Your task to perform on an android device: change the clock display to analog Image 0: 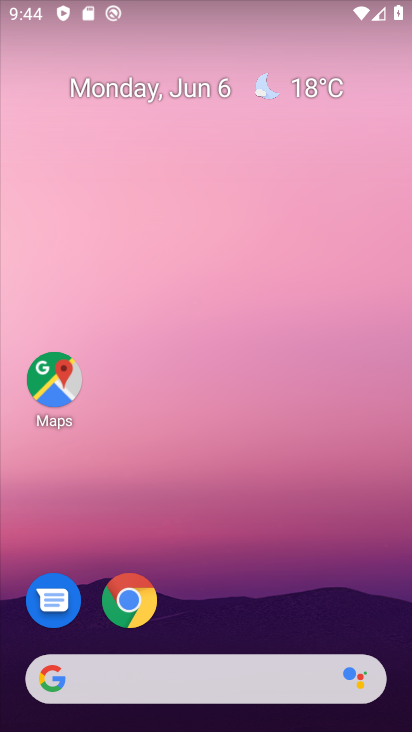
Step 0: drag from (276, 578) to (218, 33)
Your task to perform on an android device: change the clock display to analog Image 1: 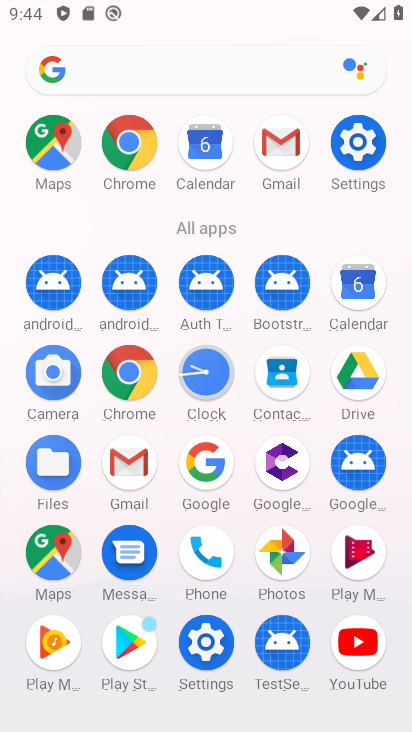
Step 1: click (207, 376)
Your task to perform on an android device: change the clock display to analog Image 2: 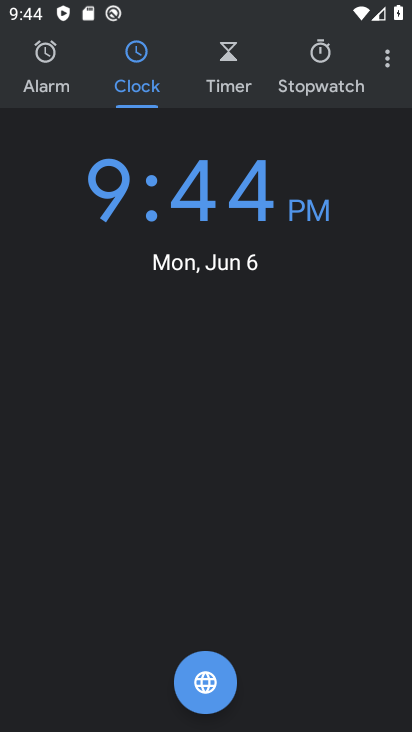
Step 2: drag from (390, 60) to (276, 117)
Your task to perform on an android device: change the clock display to analog Image 3: 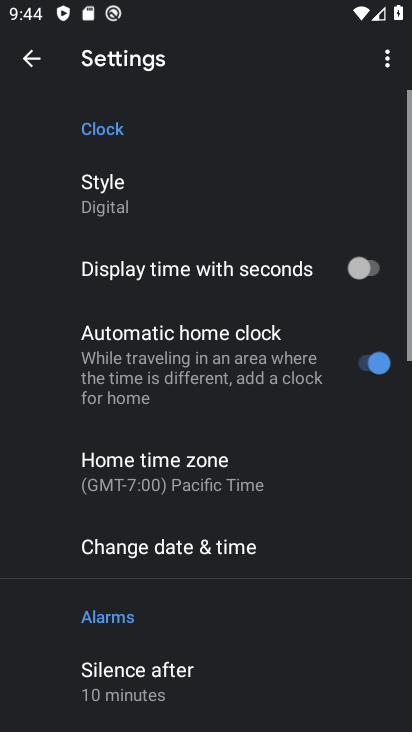
Step 3: click (187, 182)
Your task to perform on an android device: change the clock display to analog Image 4: 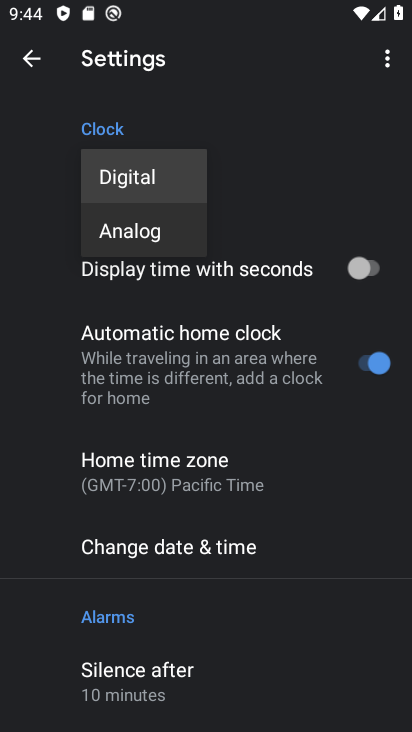
Step 4: click (157, 232)
Your task to perform on an android device: change the clock display to analog Image 5: 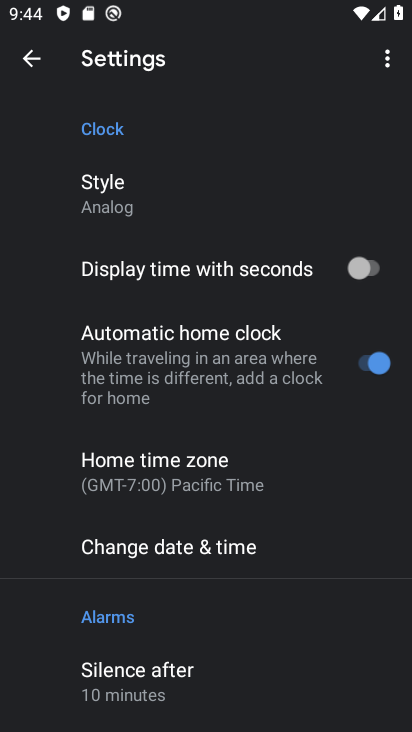
Step 5: task complete